Your task to perform on an android device: When is my next appointment? Image 0: 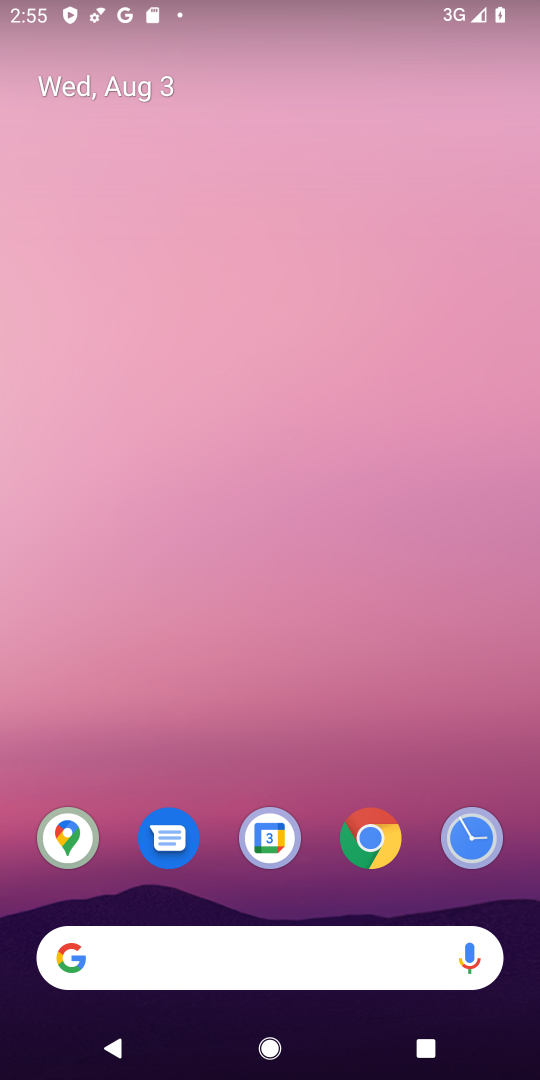
Step 0: click (268, 852)
Your task to perform on an android device: When is my next appointment? Image 1: 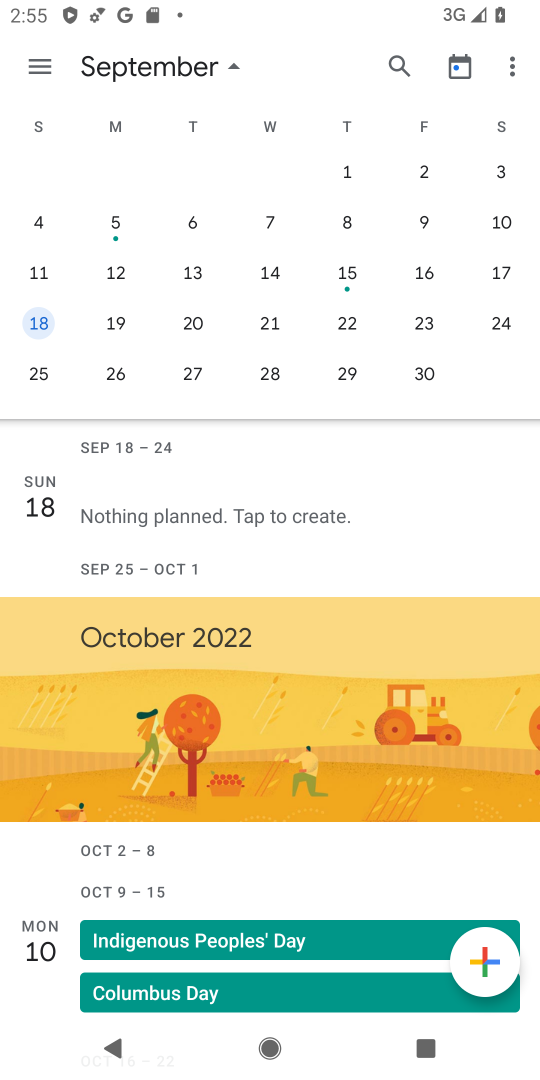
Step 1: drag from (65, 228) to (493, 190)
Your task to perform on an android device: When is my next appointment? Image 2: 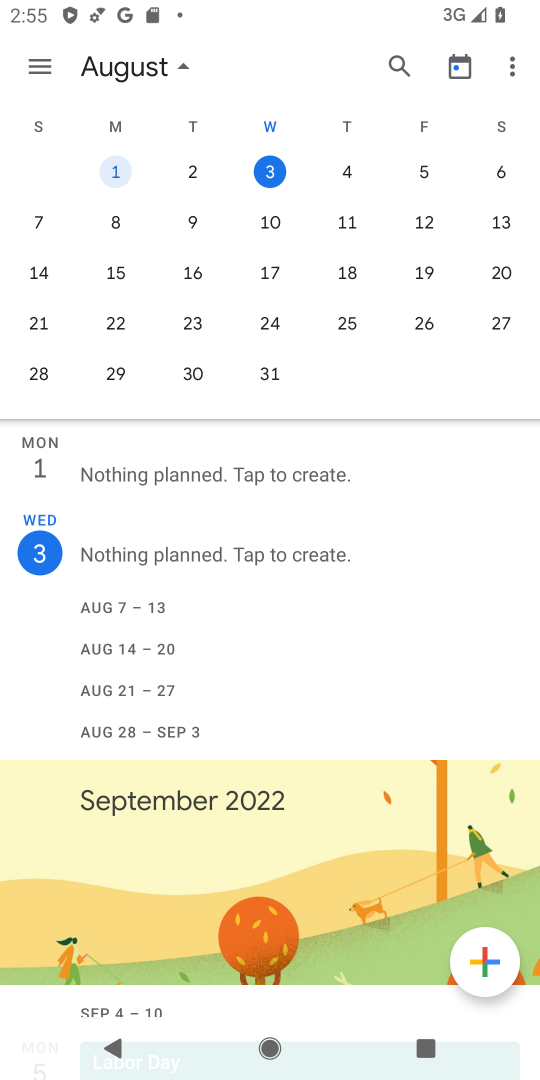
Step 2: click (275, 166)
Your task to perform on an android device: When is my next appointment? Image 3: 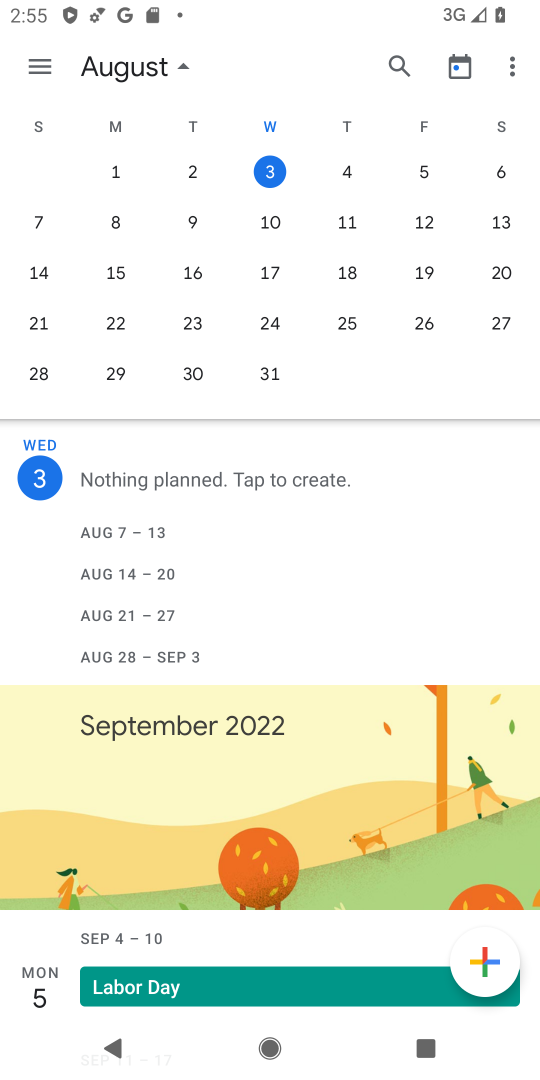
Step 3: task complete